Your task to perform on an android device: turn on wifi Image 0: 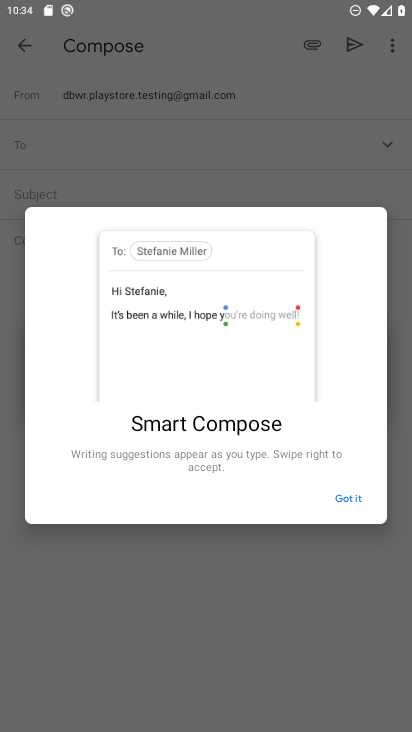
Step 0: press home button
Your task to perform on an android device: turn on wifi Image 1: 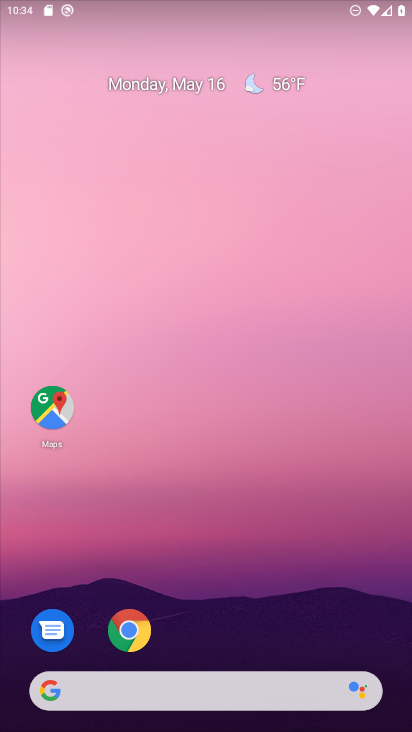
Step 1: drag from (219, 640) to (254, 41)
Your task to perform on an android device: turn on wifi Image 2: 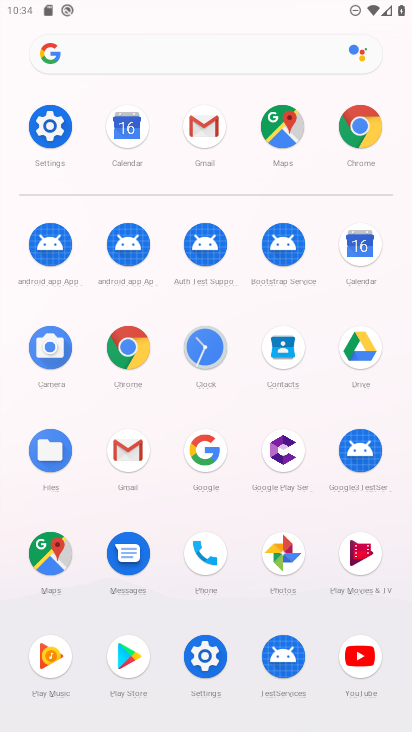
Step 2: click (43, 133)
Your task to perform on an android device: turn on wifi Image 3: 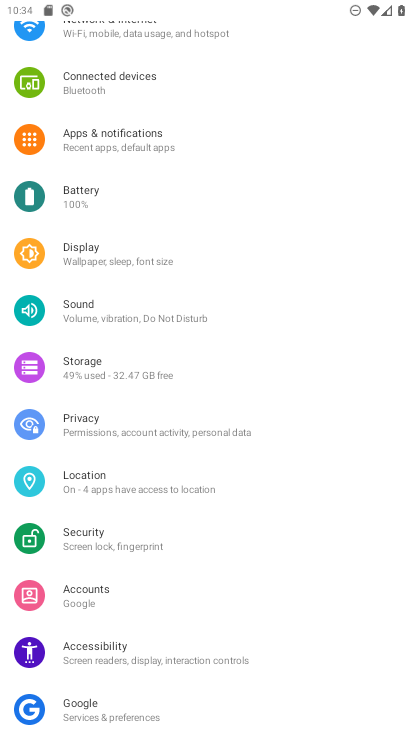
Step 3: drag from (152, 111) to (164, 376)
Your task to perform on an android device: turn on wifi Image 4: 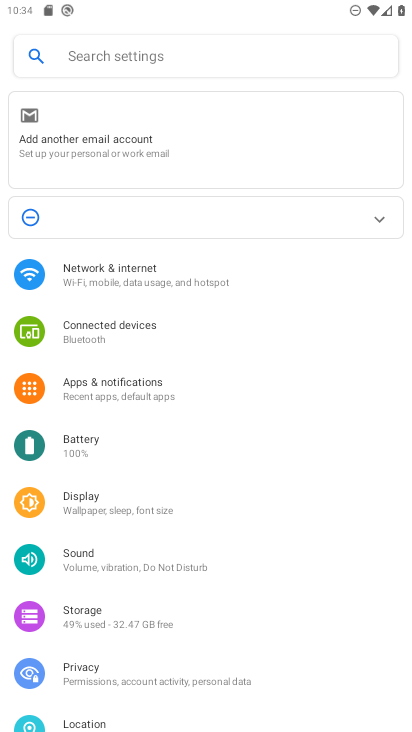
Step 4: click (163, 287)
Your task to perform on an android device: turn on wifi Image 5: 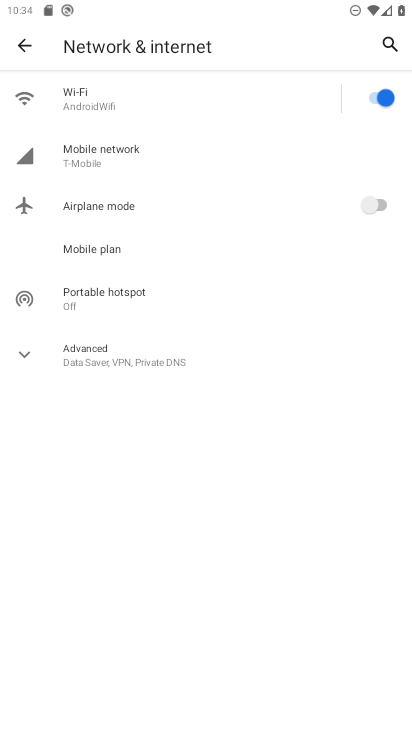
Step 5: task complete